Your task to perform on an android device: clear history in the chrome app Image 0: 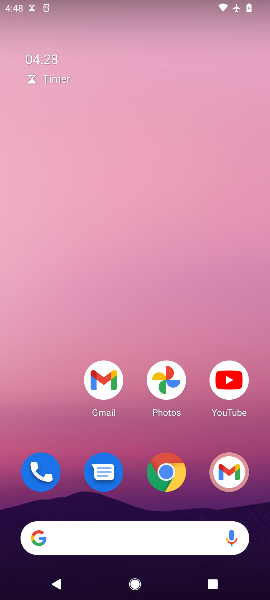
Step 0: click (166, 484)
Your task to perform on an android device: clear history in the chrome app Image 1: 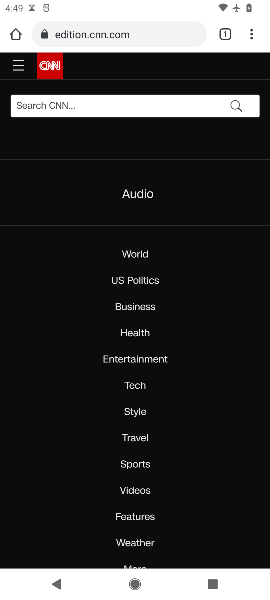
Step 1: click (259, 25)
Your task to perform on an android device: clear history in the chrome app Image 2: 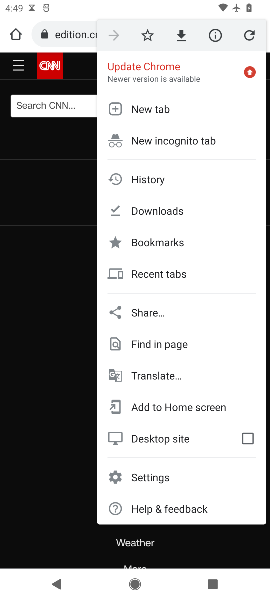
Step 2: click (154, 176)
Your task to perform on an android device: clear history in the chrome app Image 3: 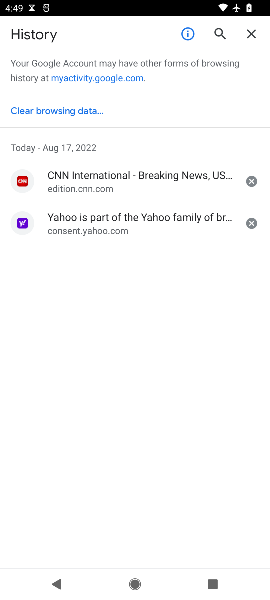
Step 3: click (70, 107)
Your task to perform on an android device: clear history in the chrome app Image 4: 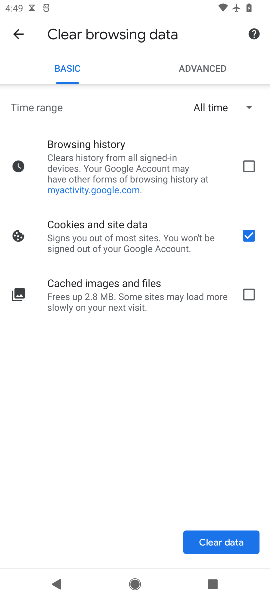
Step 4: click (235, 162)
Your task to perform on an android device: clear history in the chrome app Image 5: 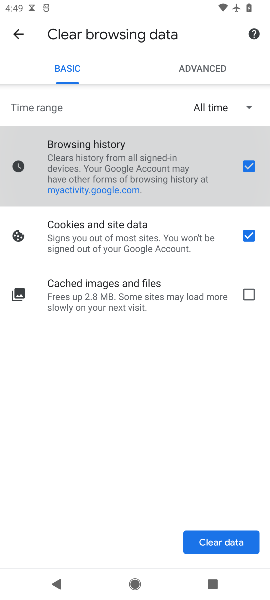
Step 5: click (249, 292)
Your task to perform on an android device: clear history in the chrome app Image 6: 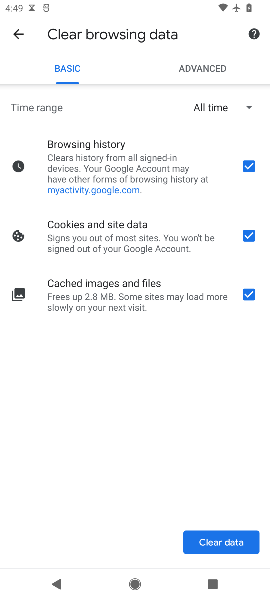
Step 6: click (220, 540)
Your task to perform on an android device: clear history in the chrome app Image 7: 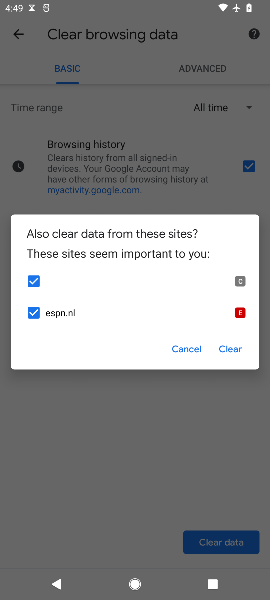
Step 7: click (232, 337)
Your task to perform on an android device: clear history in the chrome app Image 8: 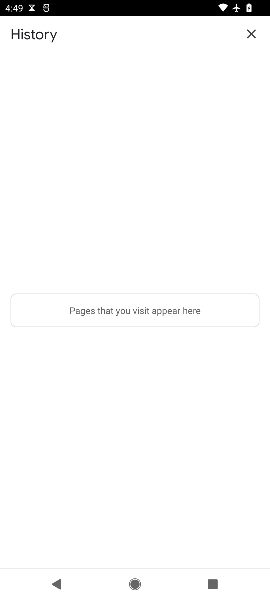
Step 8: task complete